Your task to perform on an android device: toggle show notifications on the lock screen Image 0: 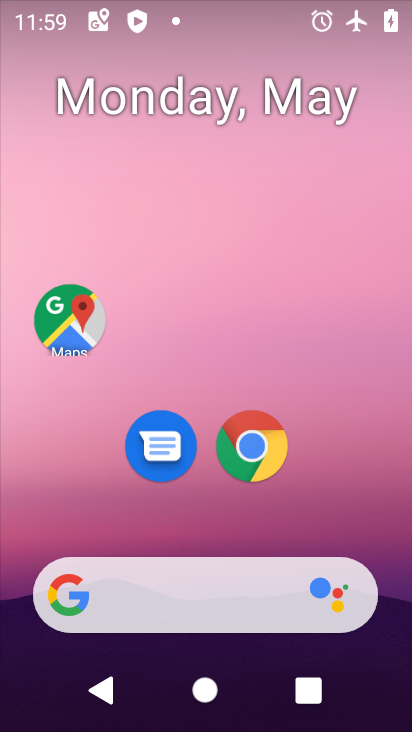
Step 0: drag from (333, 520) to (333, 173)
Your task to perform on an android device: toggle show notifications on the lock screen Image 1: 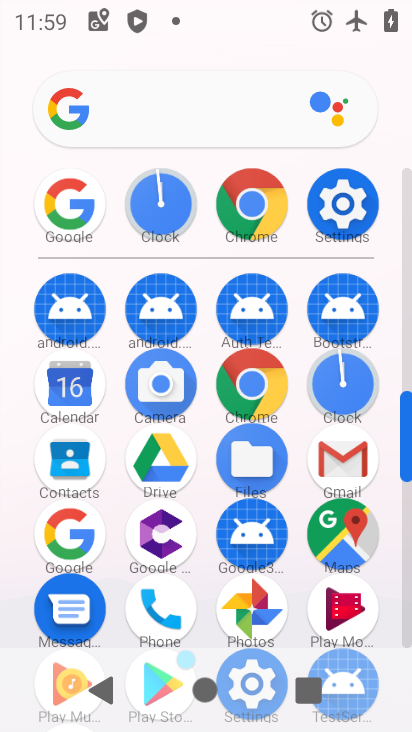
Step 1: click (346, 194)
Your task to perform on an android device: toggle show notifications on the lock screen Image 2: 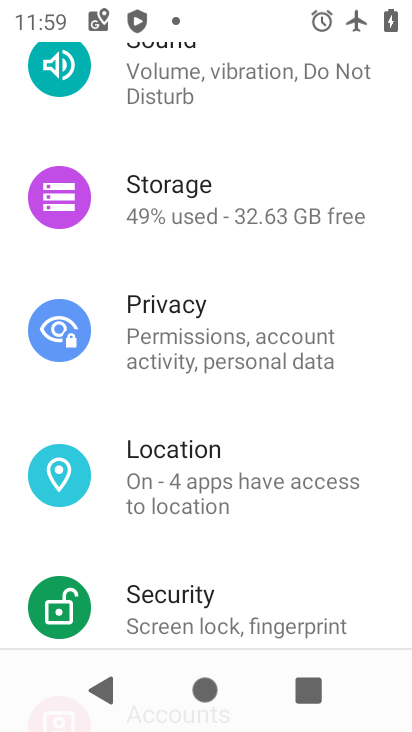
Step 2: drag from (176, 594) to (185, 636)
Your task to perform on an android device: toggle show notifications on the lock screen Image 3: 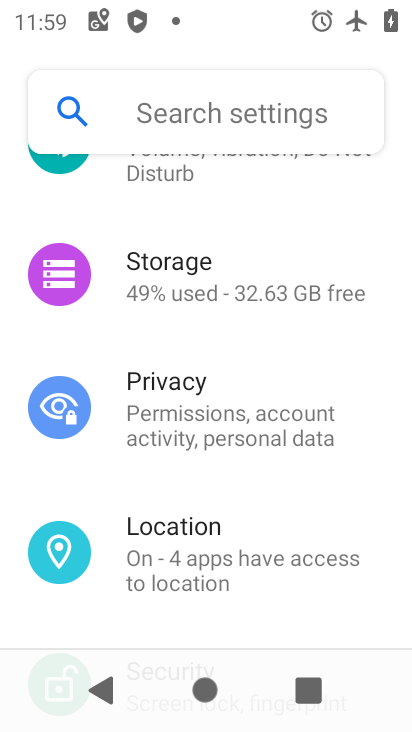
Step 3: drag from (224, 236) to (195, 662)
Your task to perform on an android device: toggle show notifications on the lock screen Image 4: 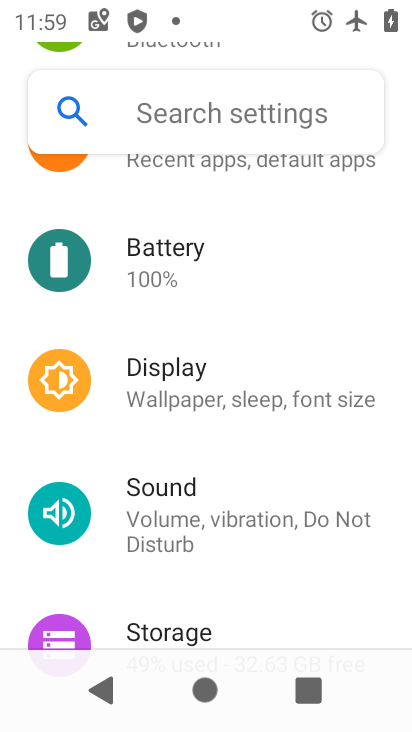
Step 4: drag from (191, 258) to (171, 627)
Your task to perform on an android device: toggle show notifications on the lock screen Image 5: 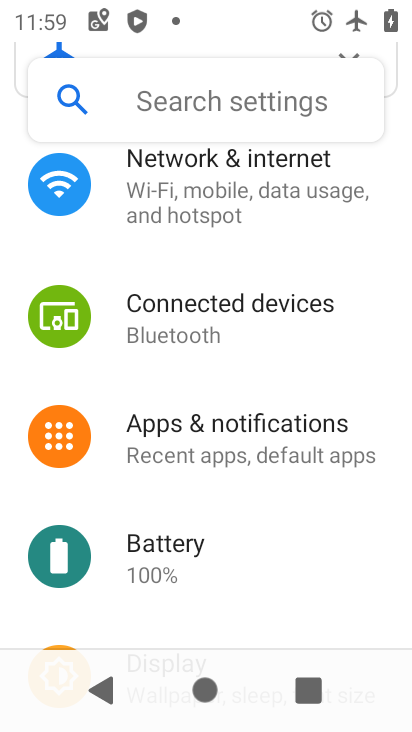
Step 5: click (170, 448)
Your task to perform on an android device: toggle show notifications on the lock screen Image 6: 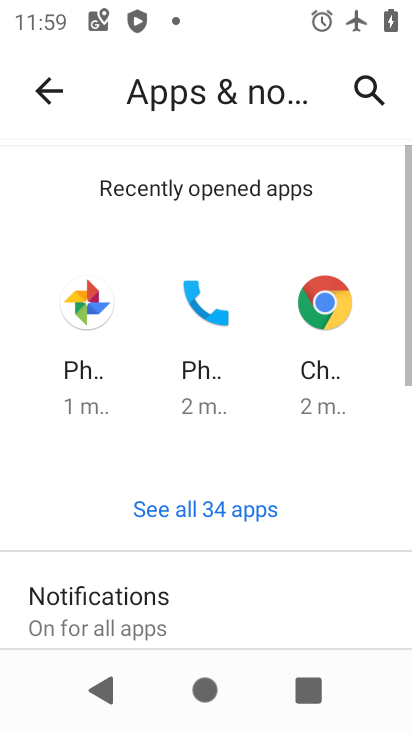
Step 6: drag from (198, 575) to (218, 464)
Your task to perform on an android device: toggle show notifications on the lock screen Image 7: 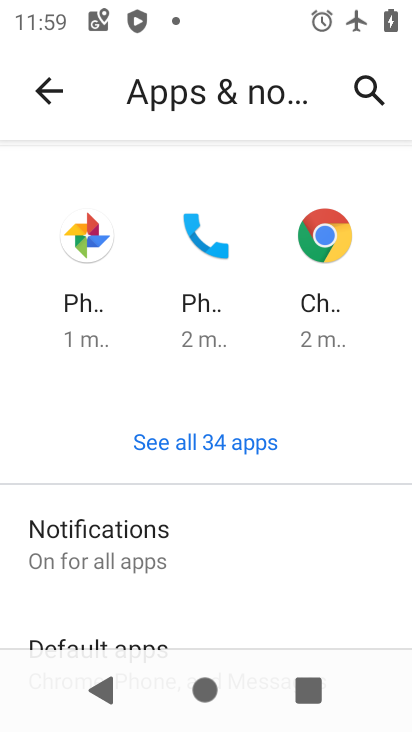
Step 7: click (144, 491)
Your task to perform on an android device: toggle show notifications on the lock screen Image 8: 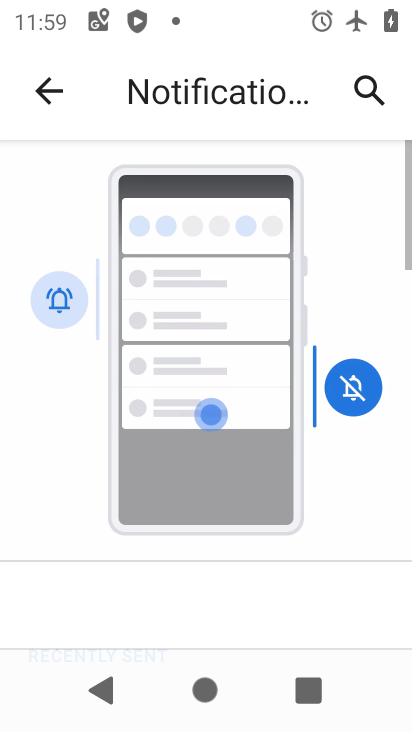
Step 8: drag from (156, 578) to (277, 126)
Your task to perform on an android device: toggle show notifications on the lock screen Image 9: 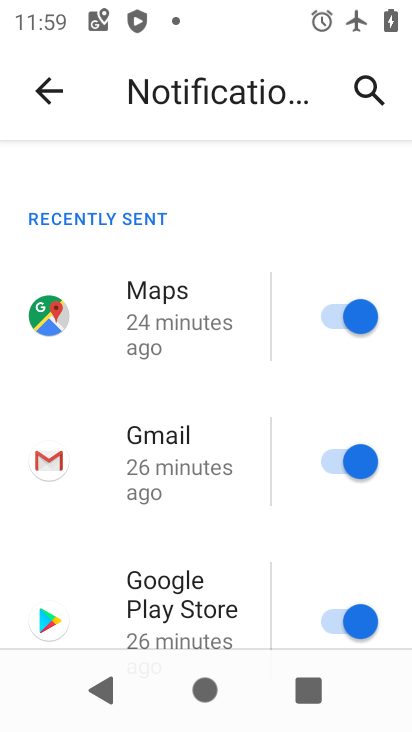
Step 9: drag from (131, 535) to (217, 150)
Your task to perform on an android device: toggle show notifications on the lock screen Image 10: 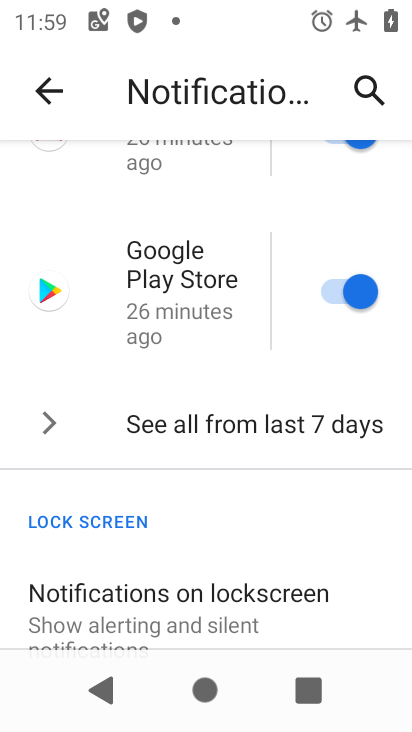
Step 10: drag from (153, 559) to (227, 312)
Your task to perform on an android device: toggle show notifications on the lock screen Image 11: 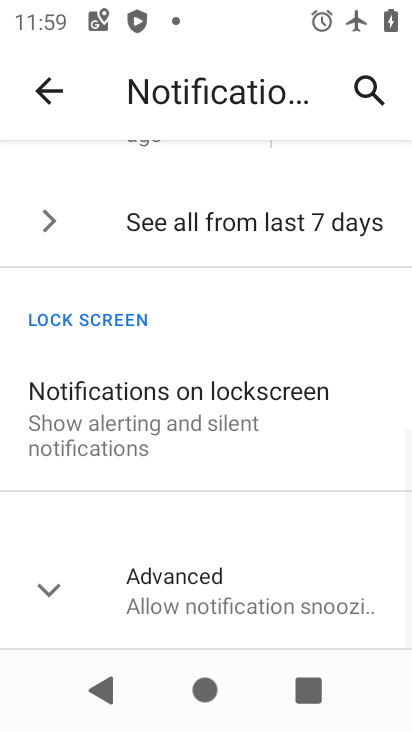
Step 11: click (194, 407)
Your task to perform on an android device: toggle show notifications on the lock screen Image 12: 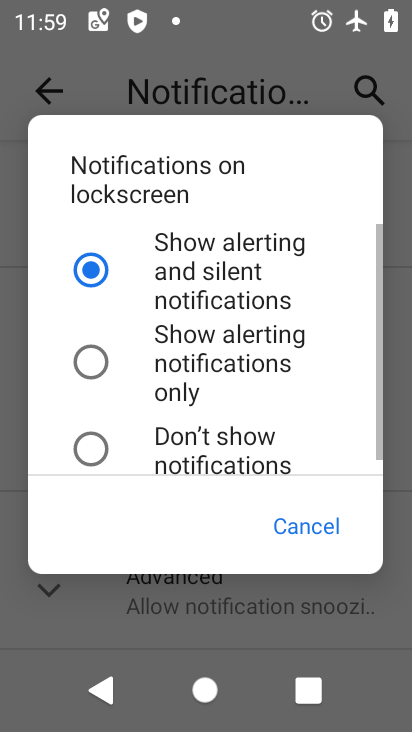
Step 12: drag from (161, 385) to (193, 207)
Your task to perform on an android device: toggle show notifications on the lock screen Image 13: 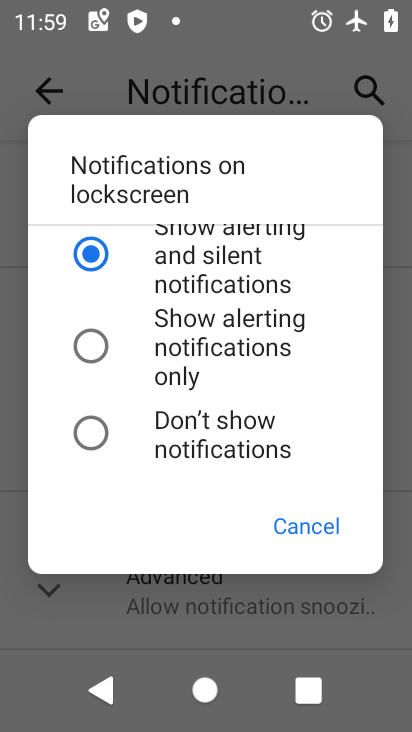
Step 13: click (160, 353)
Your task to perform on an android device: toggle show notifications on the lock screen Image 14: 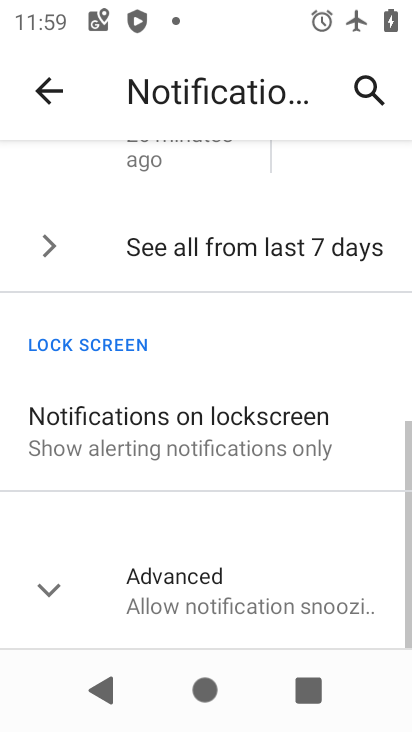
Step 14: task complete